Your task to perform on an android device: Open Google Image 0: 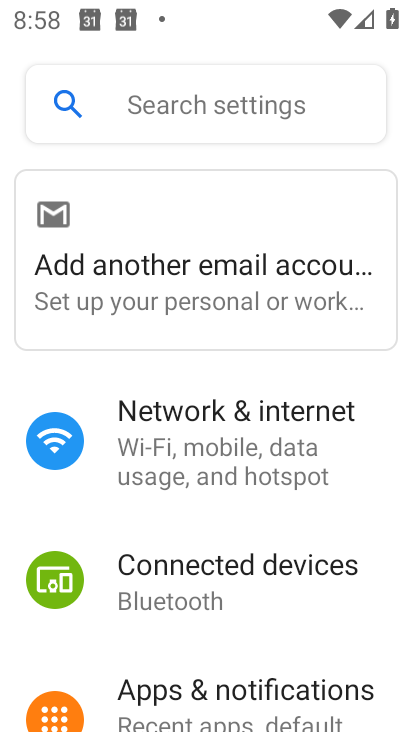
Step 0: press home button
Your task to perform on an android device: Open Google Image 1: 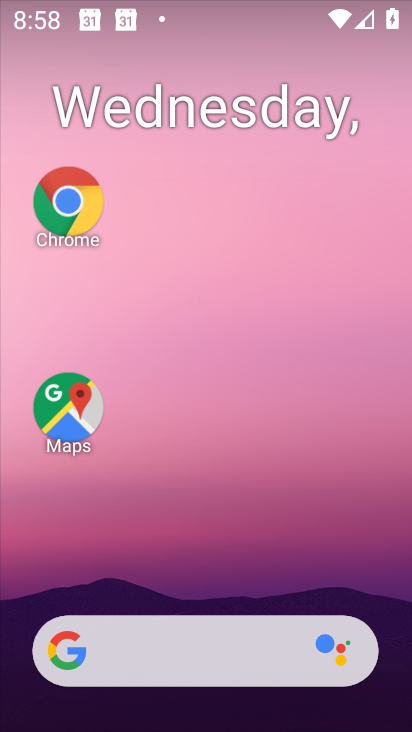
Step 1: drag from (151, 599) to (156, 48)
Your task to perform on an android device: Open Google Image 2: 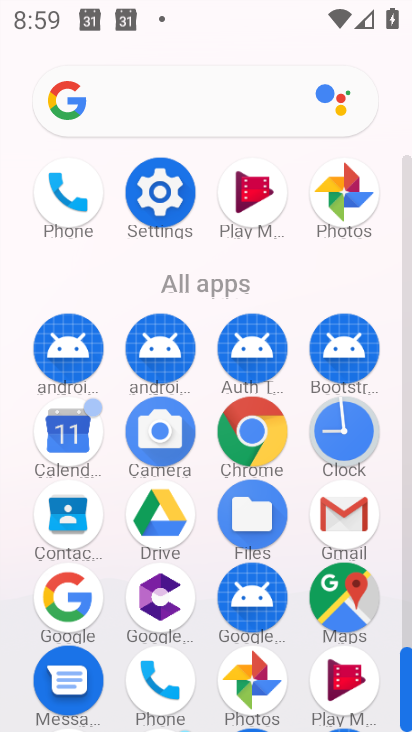
Step 2: click (77, 609)
Your task to perform on an android device: Open Google Image 3: 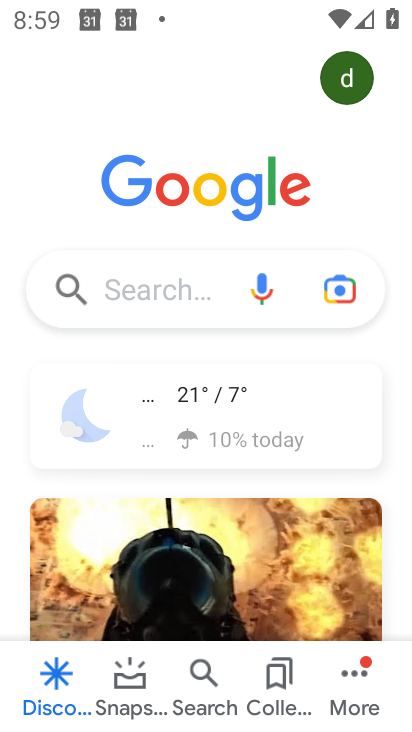
Step 3: task complete